Your task to perform on an android device: turn on airplane mode Image 0: 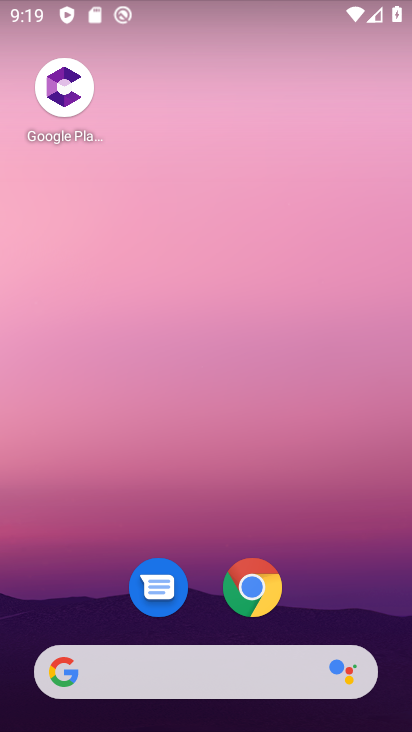
Step 0: drag from (340, 580) to (302, 9)
Your task to perform on an android device: turn on airplane mode Image 1: 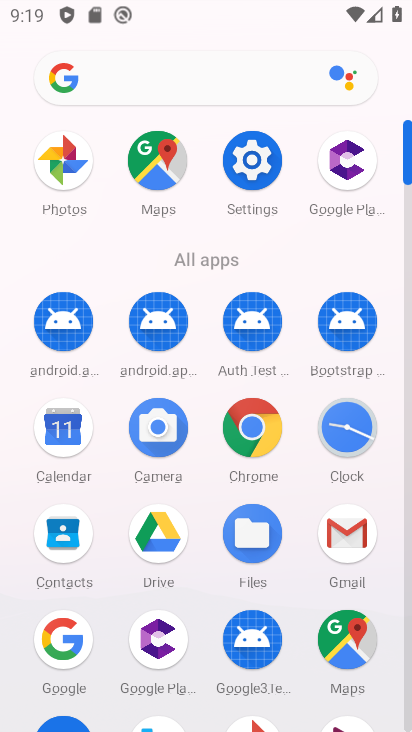
Step 1: click (251, 171)
Your task to perform on an android device: turn on airplane mode Image 2: 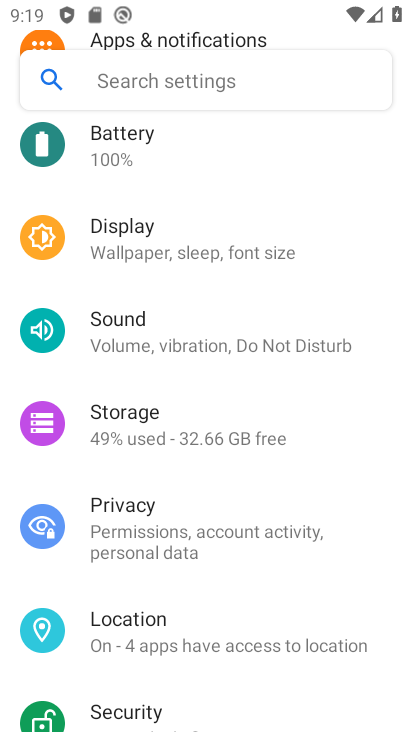
Step 2: drag from (251, 171) to (242, 482)
Your task to perform on an android device: turn on airplane mode Image 3: 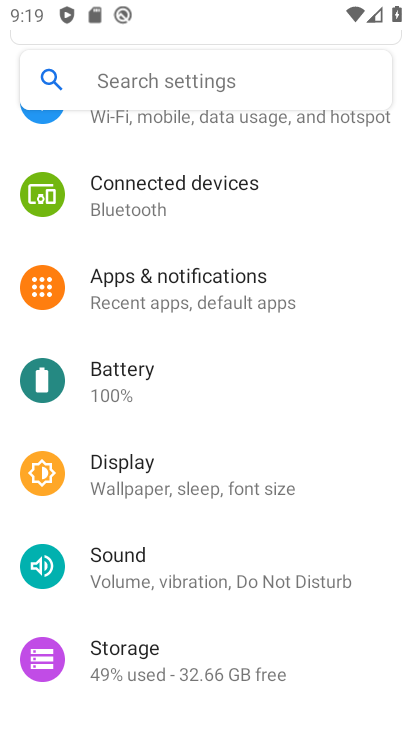
Step 3: click (209, 117)
Your task to perform on an android device: turn on airplane mode Image 4: 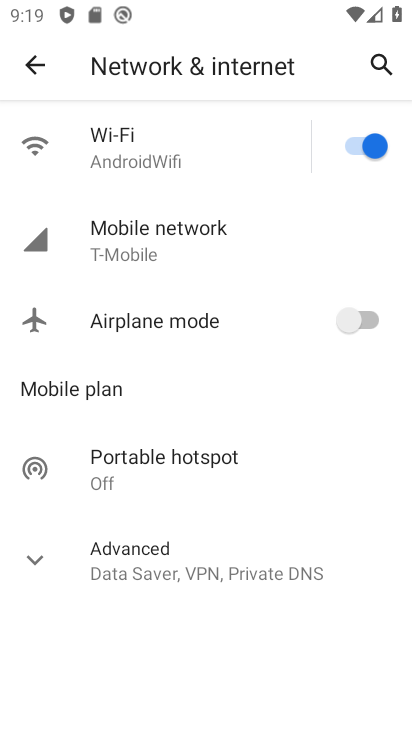
Step 4: click (342, 325)
Your task to perform on an android device: turn on airplane mode Image 5: 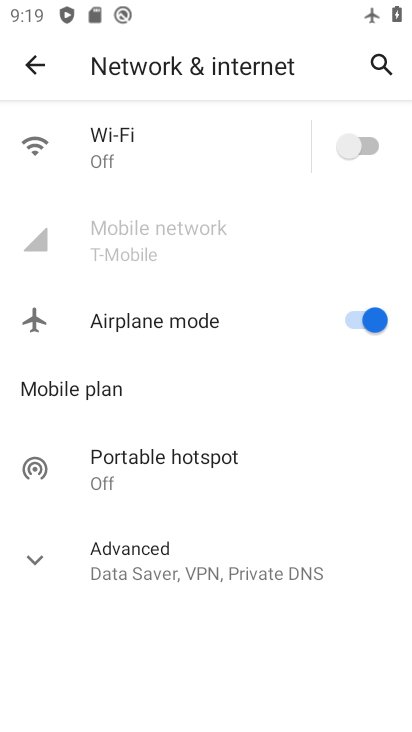
Step 5: task complete